Your task to perform on an android device: turn vacation reply on in the gmail app Image 0: 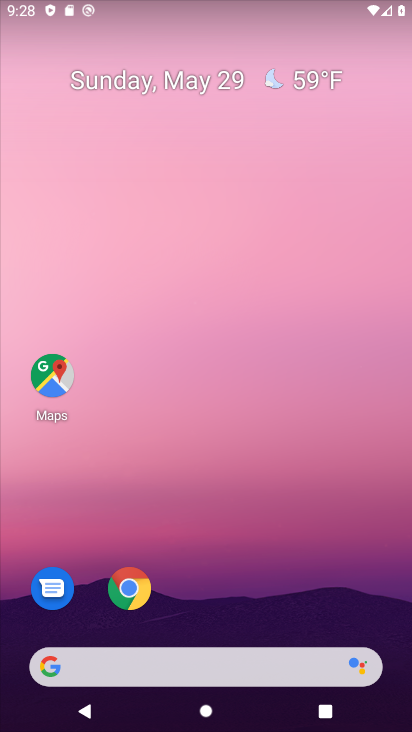
Step 0: drag from (212, 616) to (210, 101)
Your task to perform on an android device: turn vacation reply on in the gmail app Image 1: 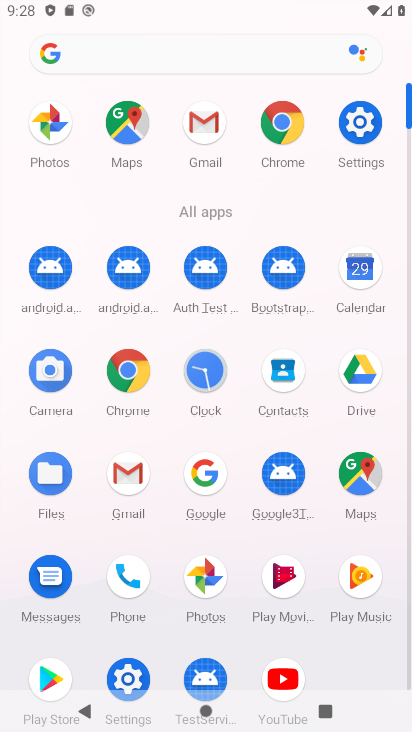
Step 1: click (196, 136)
Your task to perform on an android device: turn vacation reply on in the gmail app Image 2: 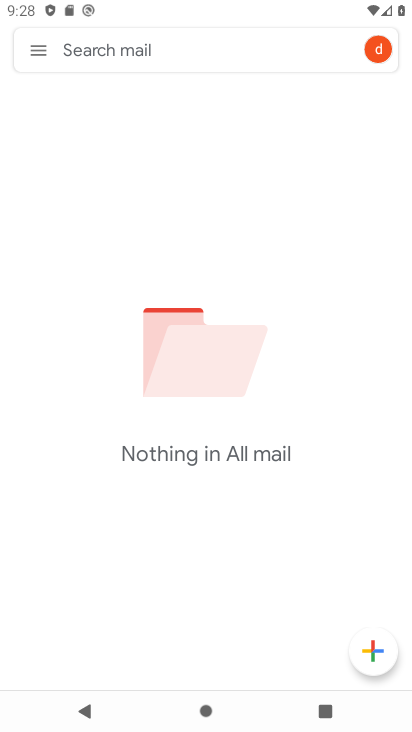
Step 2: click (43, 46)
Your task to perform on an android device: turn vacation reply on in the gmail app Image 3: 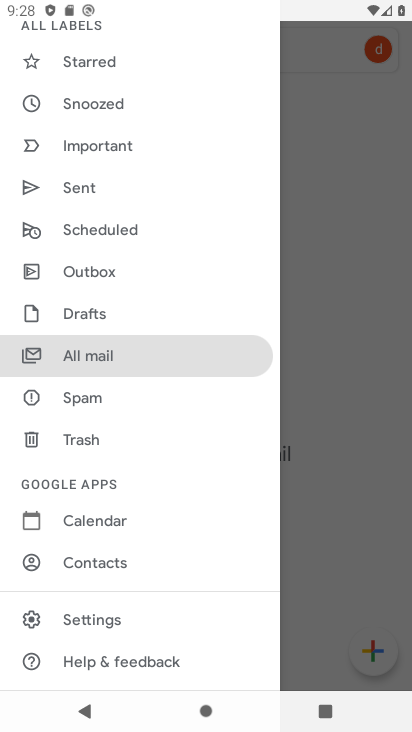
Step 3: click (119, 621)
Your task to perform on an android device: turn vacation reply on in the gmail app Image 4: 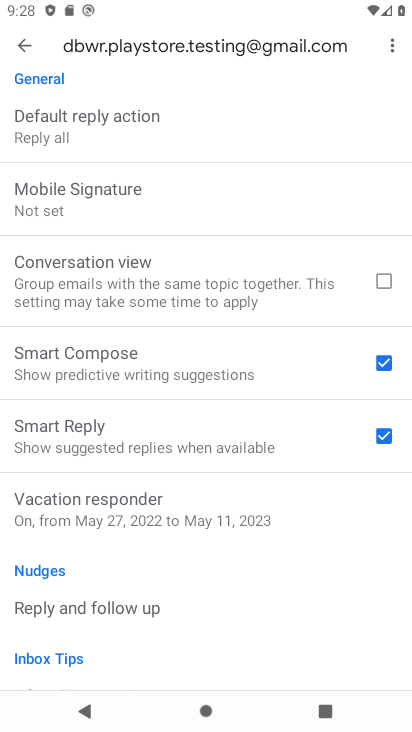
Step 4: click (219, 512)
Your task to perform on an android device: turn vacation reply on in the gmail app Image 5: 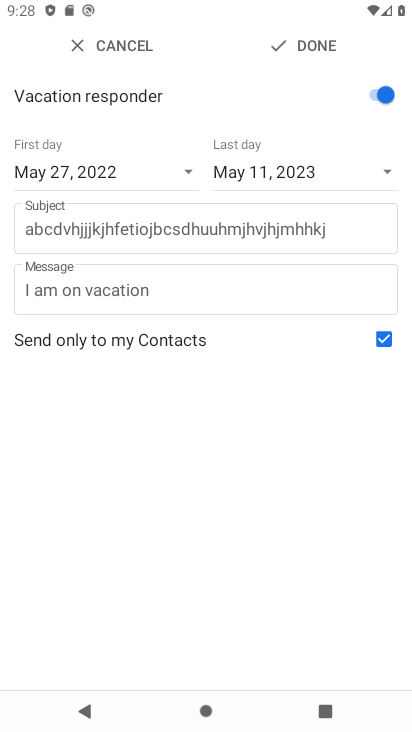
Step 5: click (324, 40)
Your task to perform on an android device: turn vacation reply on in the gmail app Image 6: 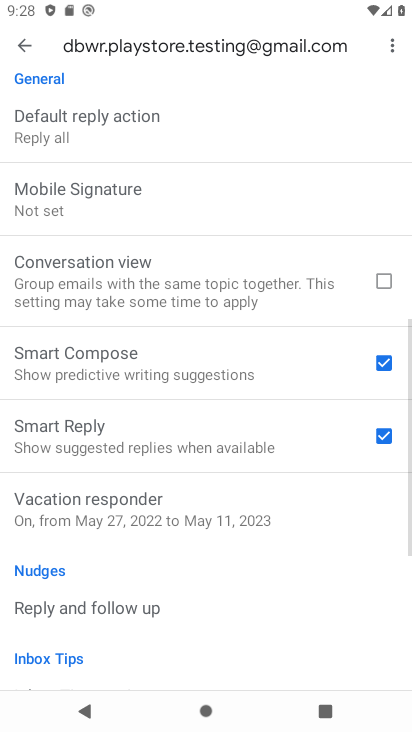
Step 6: task complete